Your task to perform on an android device: turn off wifi Image 0: 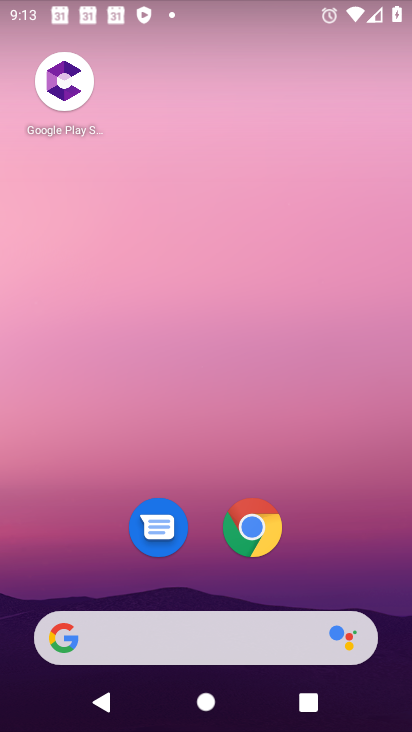
Step 0: drag from (195, 592) to (160, 17)
Your task to perform on an android device: turn off wifi Image 1: 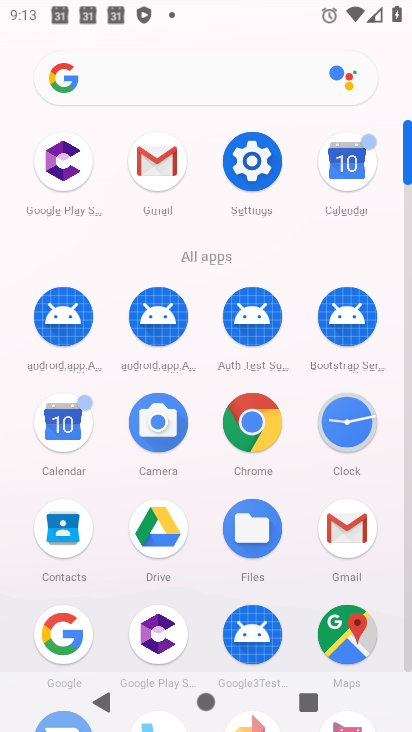
Step 1: click (257, 143)
Your task to perform on an android device: turn off wifi Image 2: 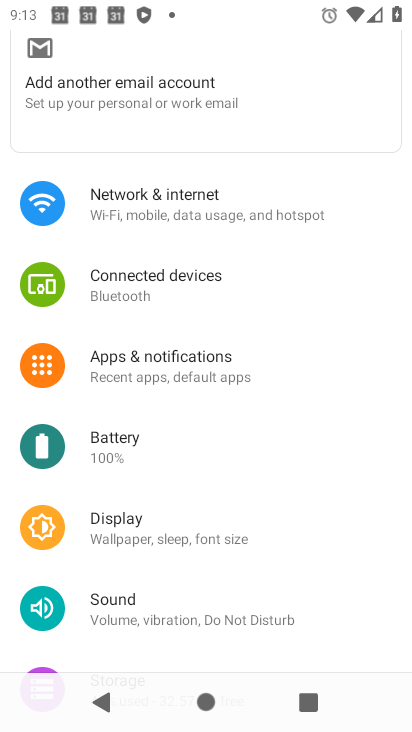
Step 2: click (166, 209)
Your task to perform on an android device: turn off wifi Image 3: 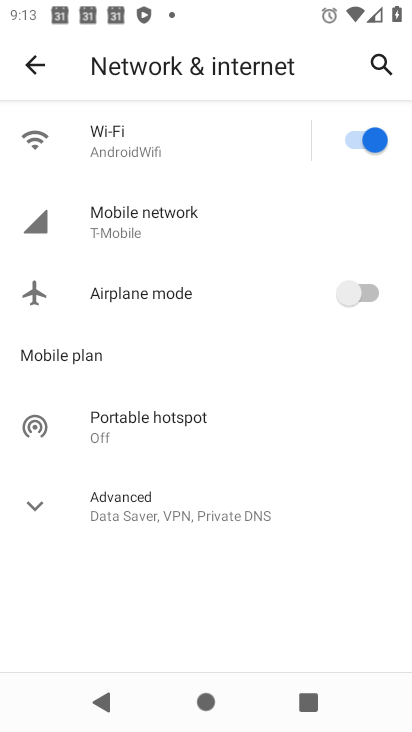
Step 3: click (355, 136)
Your task to perform on an android device: turn off wifi Image 4: 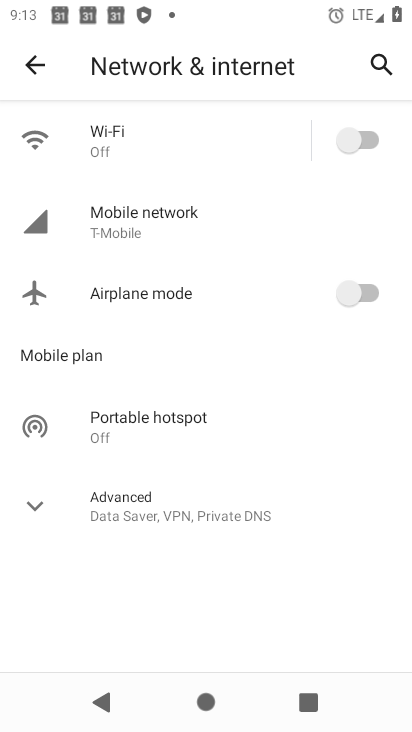
Step 4: task complete